Your task to perform on an android device: open chrome privacy settings Image 0: 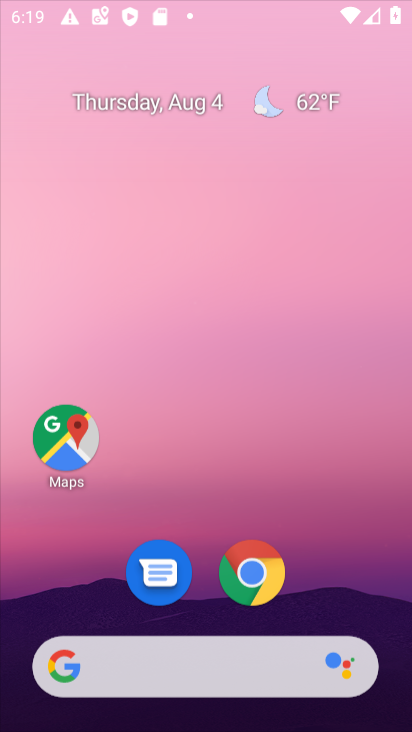
Step 0: press home button
Your task to perform on an android device: open chrome privacy settings Image 1: 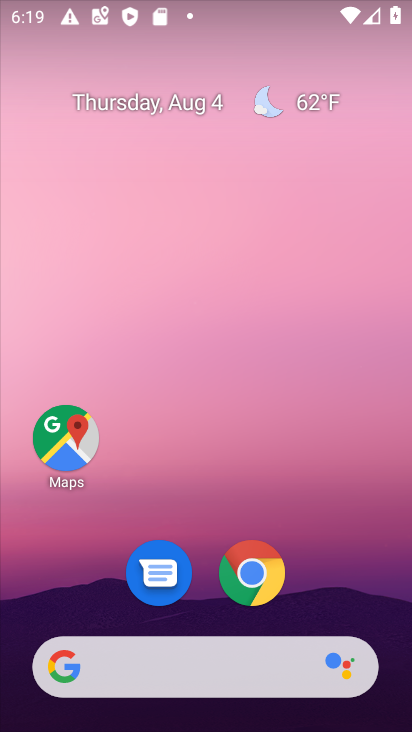
Step 1: click (247, 595)
Your task to perform on an android device: open chrome privacy settings Image 2: 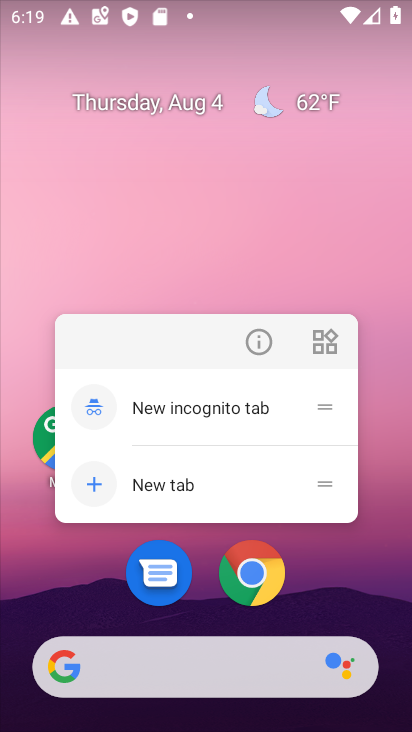
Step 2: click (247, 595)
Your task to perform on an android device: open chrome privacy settings Image 3: 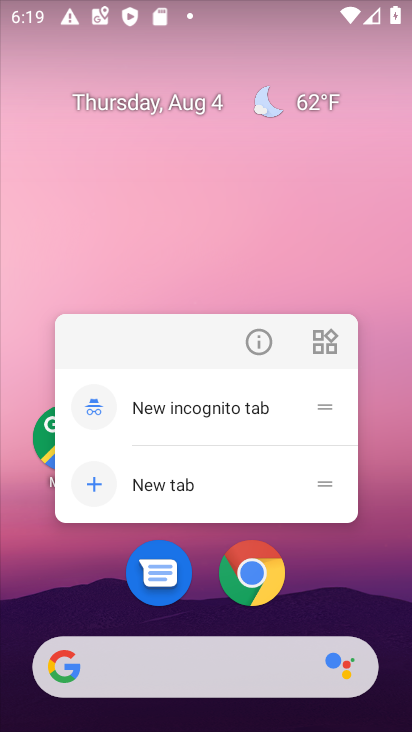
Step 3: click (311, 598)
Your task to perform on an android device: open chrome privacy settings Image 4: 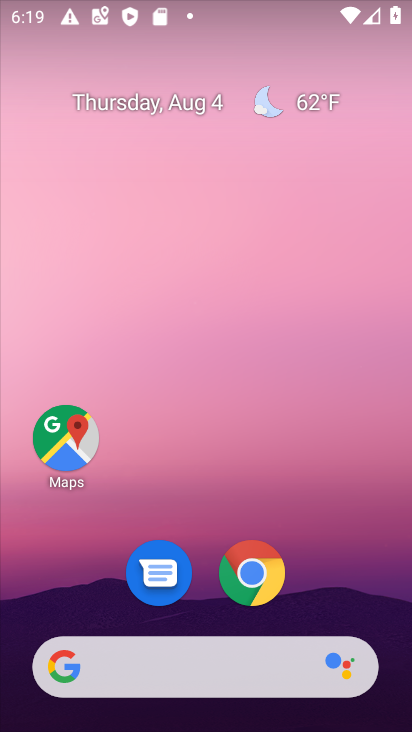
Step 4: drag from (332, 539) to (263, 4)
Your task to perform on an android device: open chrome privacy settings Image 5: 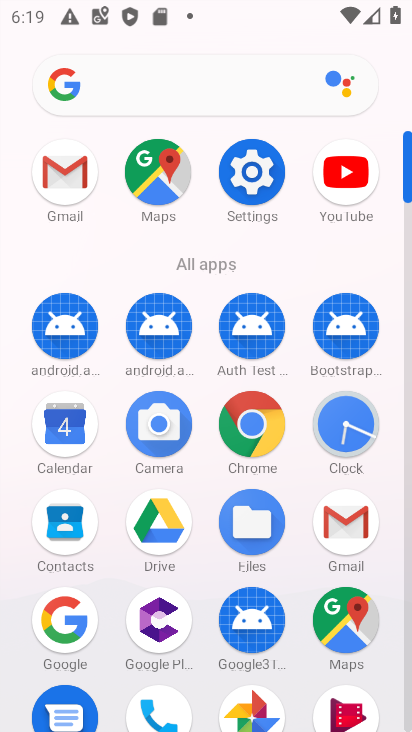
Step 5: click (265, 424)
Your task to perform on an android device: open chrome privacy settings Image 6: 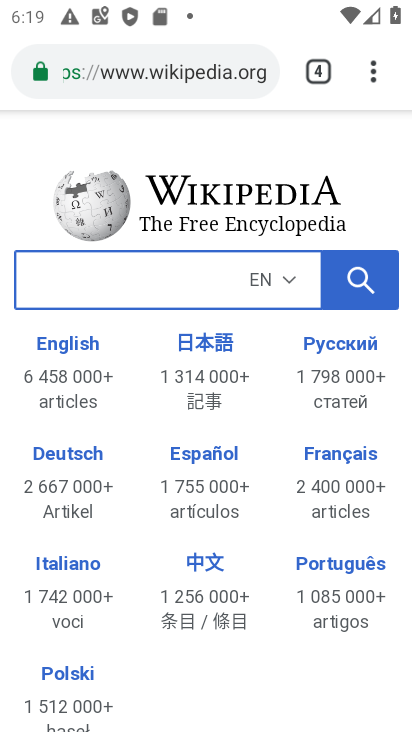
Step 6: drag from (376, 72) to (154, 566)
Your task to perform on an android device: open chrome privacy settings Image 7: 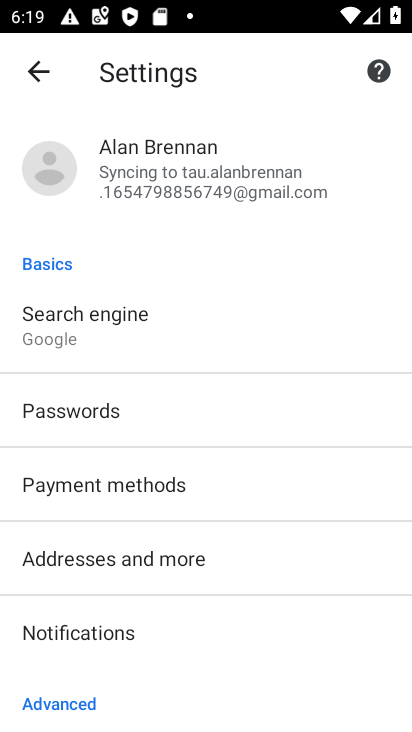
Step 7: drag from (251, 652) to (240, 210)
Your task to perform on an android device: open chrome privacy settings Image 8: 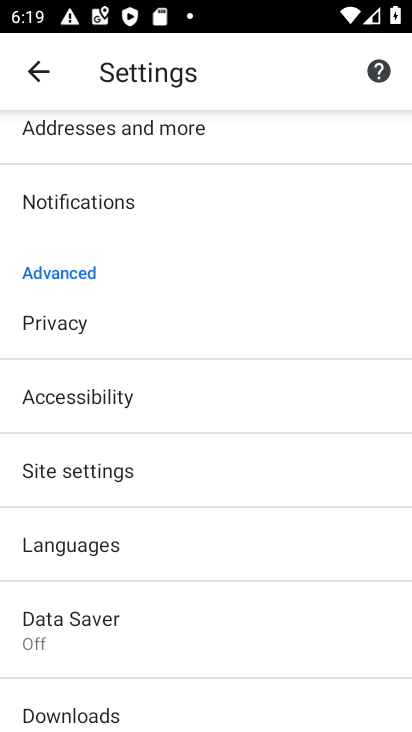
Step 8: click (56, 323)
Your task to perform on an android device: open chrome privacy settings Image 9: 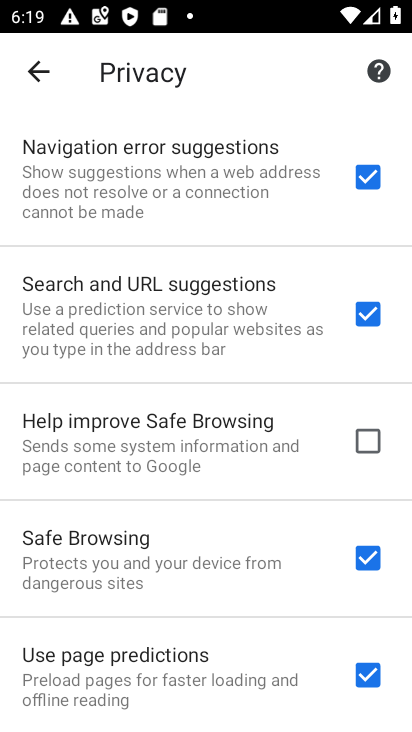
Step 9: task complete